Your task to perform on an android device: turn off picture-in-picture Image 0: 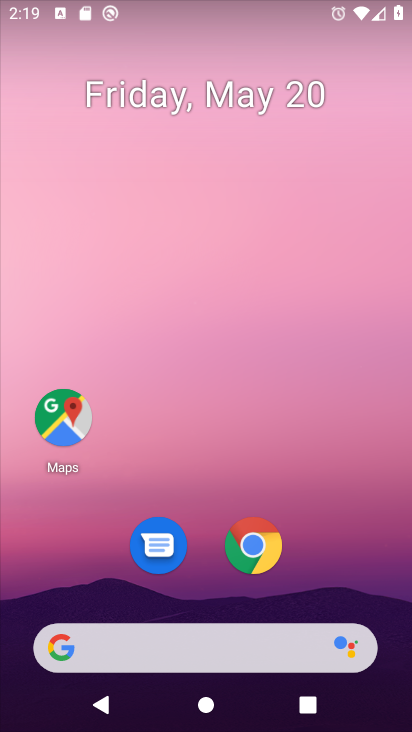
Step 0: drag from (240, 225) to (223, 13)
Your task to perform on an android device: turn off picture-in-picture Image 1: 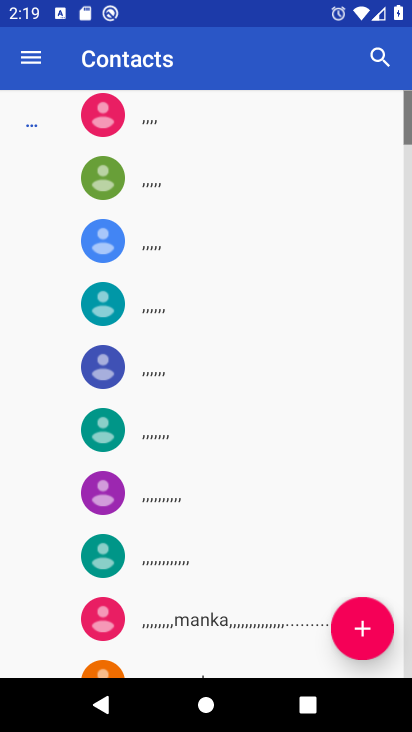
Step 1: press home button
Your task to perform on an android device: turn off picture-in-picture Image 2: 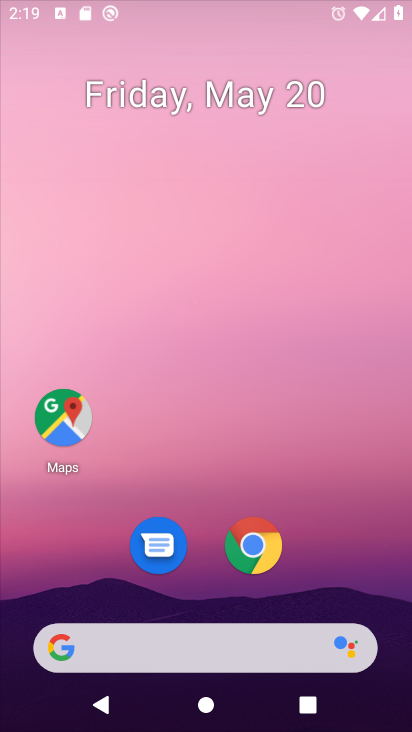
Step 2: drag from (230, 589) to (190, 44)
Your task to perform on an android device: turn off picture-in-picture Image 3: 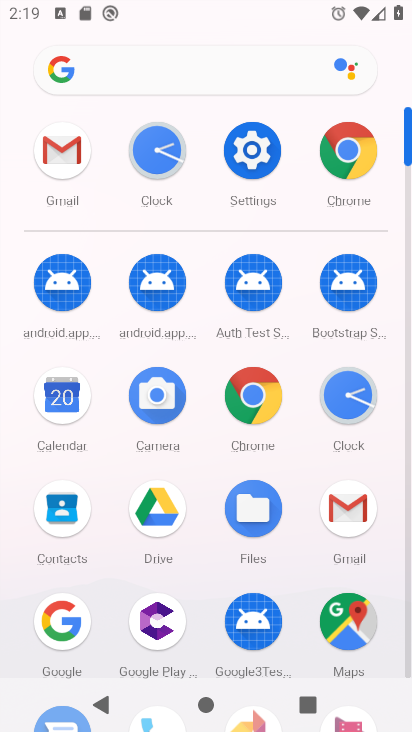
Step 3: click (252, 144)
Your task to perform on an android device: turn off picture-in-picture Image 4: 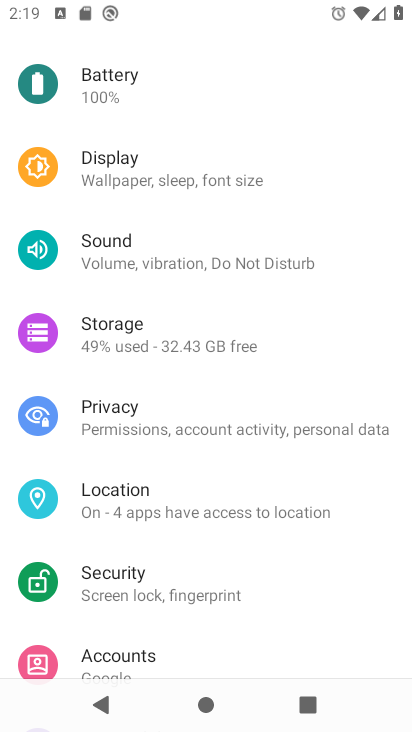
Step 4: drag from (156, 186) to (181, 655)
Your task to perform on an android device: turn off picture-in-picture Image 5: 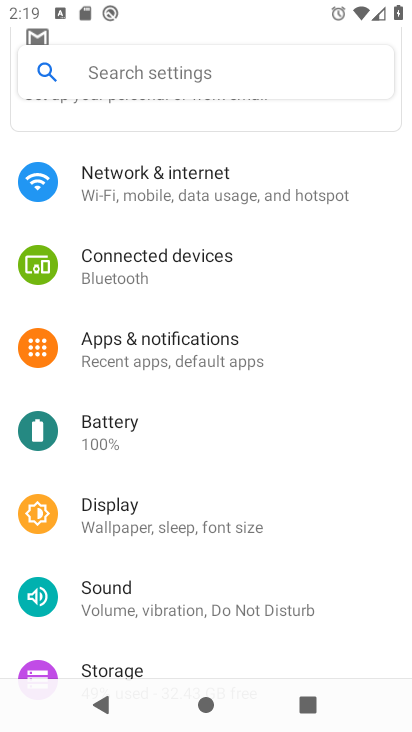
Step 5: click (187, 358)
Your task to perform on an android device: turn off picture-in-picture Image 6: 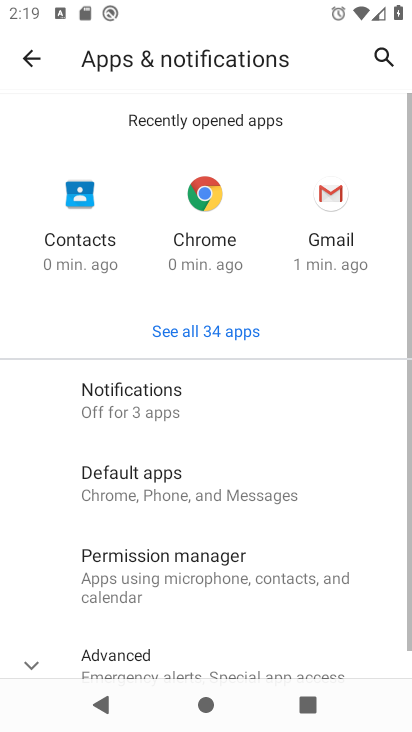
Step 6: drag from (281, 654) to (279, 285)
Your task to perform on an android device: turn off picture-in-picture Image 7: 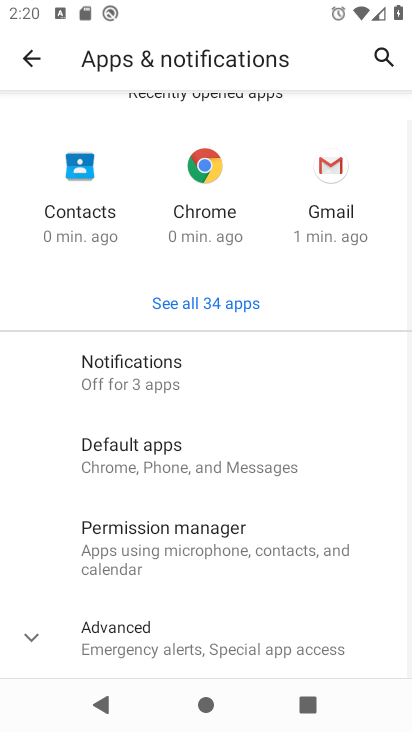
Step 7: click (215, 654)
Your task to perform on an android device: turn off picture-in-picture Image 8: 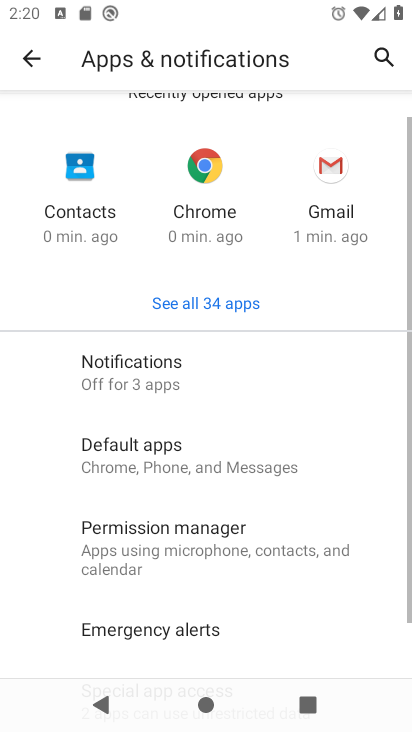
Step 8: drag from (215, 654) to (250, 254)
Your task to perform on an android device: turn off picture-in-picture Image 9: 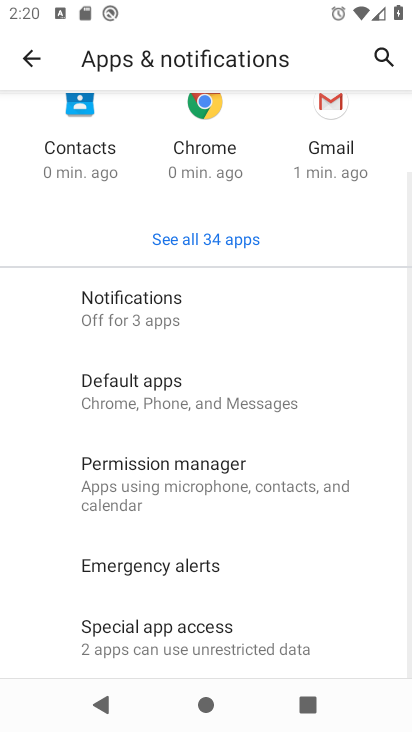
Step 9: click (254, 644)
Your task to perform on an android device: turn off picture-in-picture Image 10: 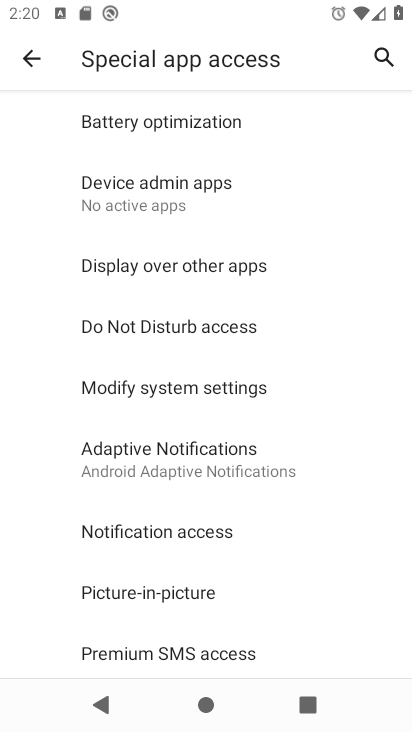
Step 10: click (199, 600)
Your task to perform on an android device: turn off picture-in-picture Image 11: 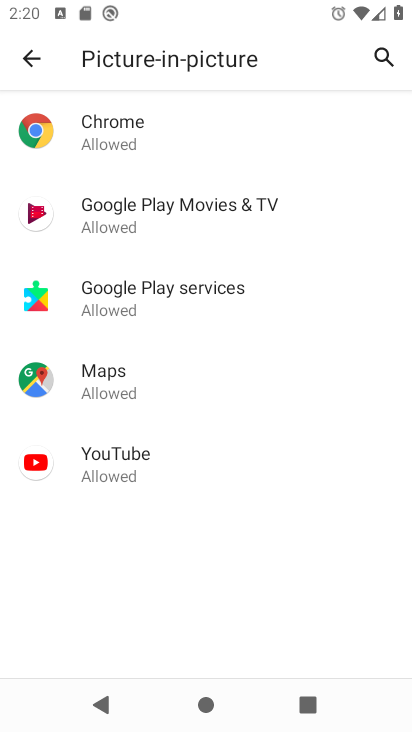
Step 11: click (168, 137)
Your task to perform on an android device: turn off picture-in-picture Image 12: 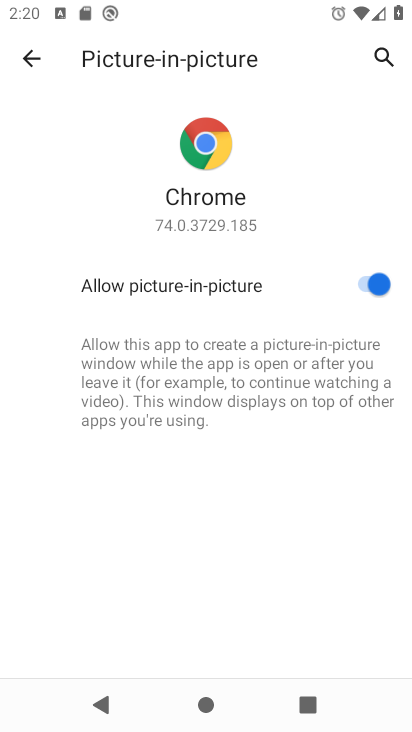
Step 12: click (370, 283)
Your task to perform on an android device: turn off picture-in-picture Image 13: 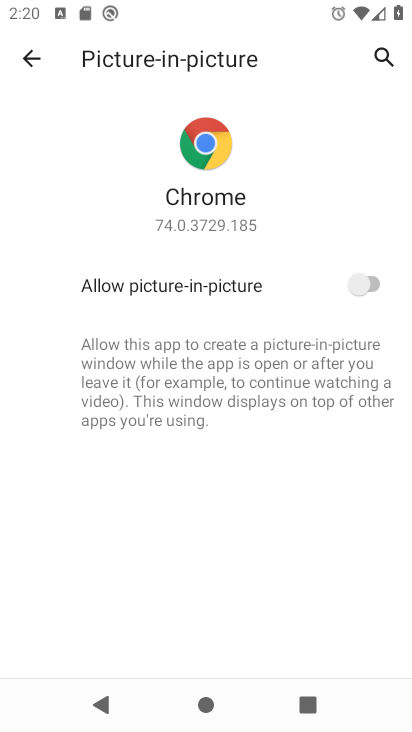
Step 13: press back button
Your task to perform on an android device: turn off picture-in-picture Image 14: 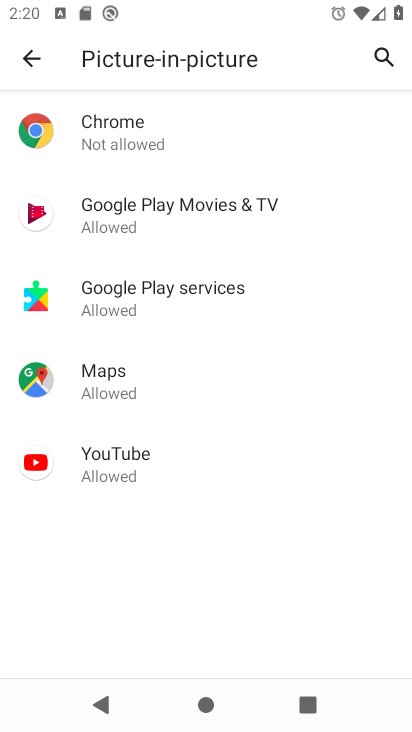
Step 14: click (193, 228)
Your task to perform on an android device: turn off picture-in-picture Image 15: 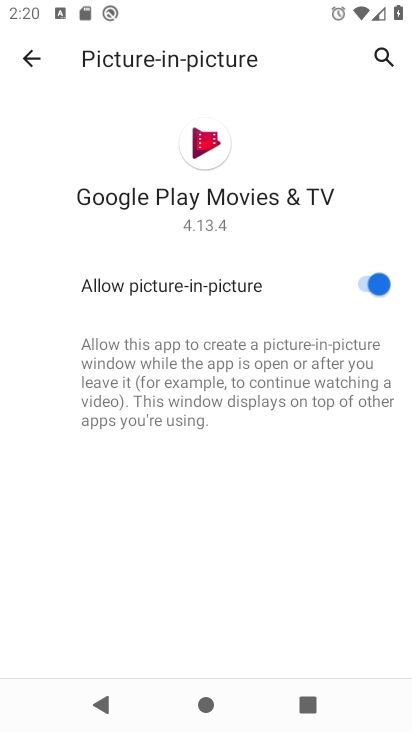
Step 15: click (356, 282)
Your task to perform on an android device: turn off picture-in-picture Image 16: 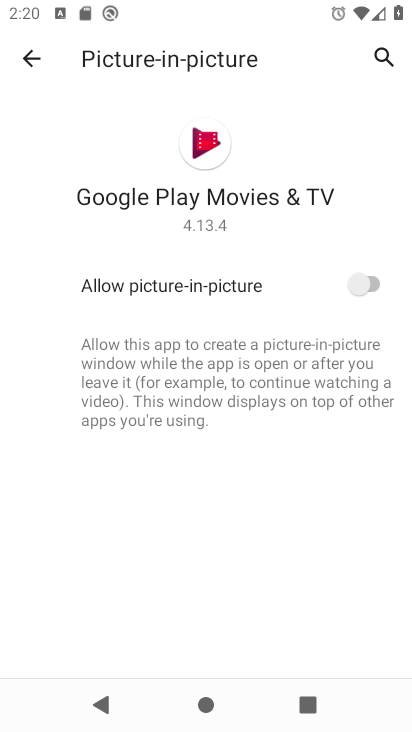
Step 16: press back button
Your task to perform on an android device: turn off picture-in-picture Image 17: 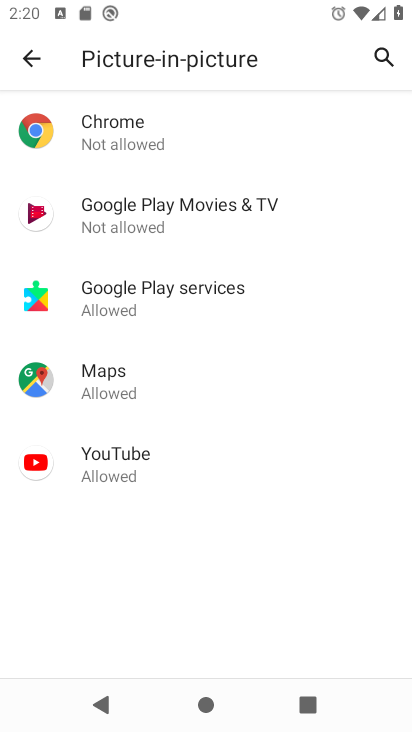
Step 17: click (310, 319)
Your task to perform on an android device: turn off picture-in-picture Image 18: 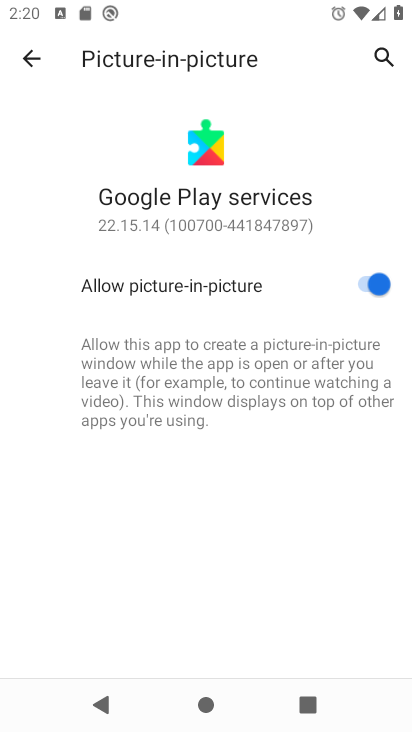
Step 18: click (366, 278)
Your task to perform on an android device: turn off picture-in-picture Image 19: 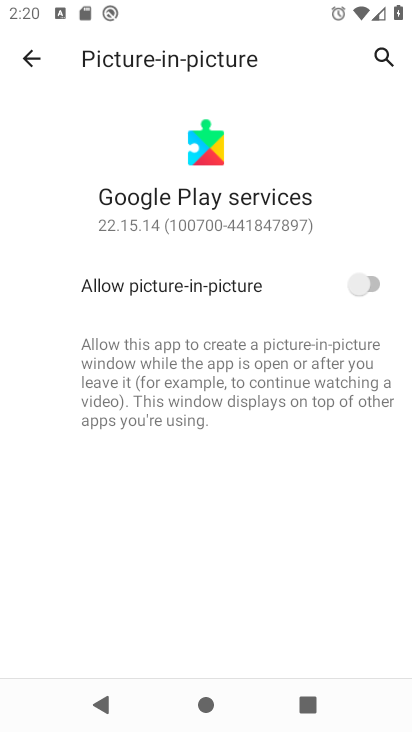
Step 19: press back button
Your task to perform on an android device: turn off picture-in-picture Image 20: 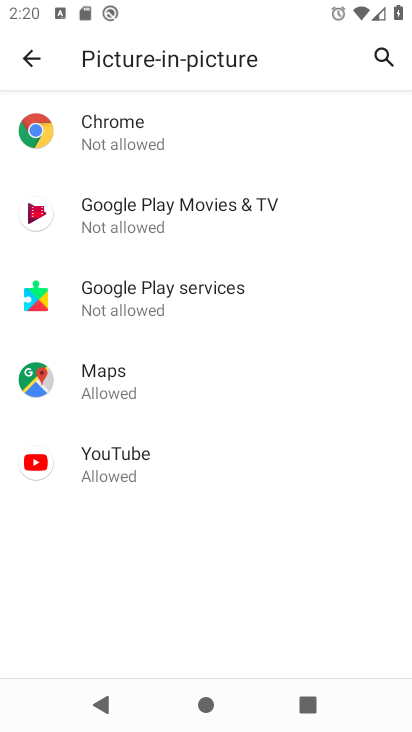
Step 20: click (284, 378)
Your task to perform on an android device: turn off picture-in-picture Image 21: 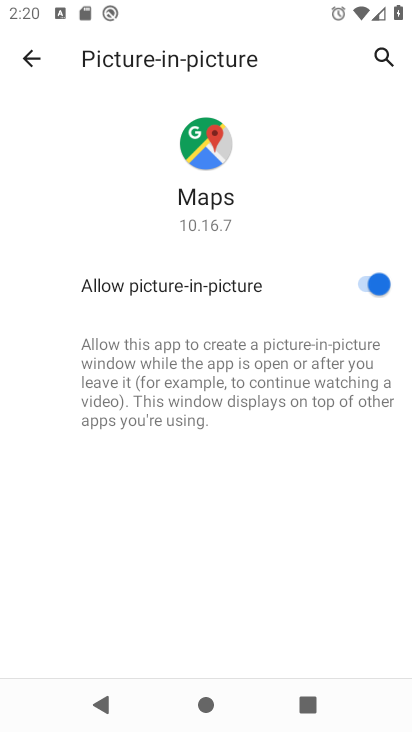
Step 21: click (373, 289)
Your task to perform on an android device: turn off picture-in-picture Image 22: 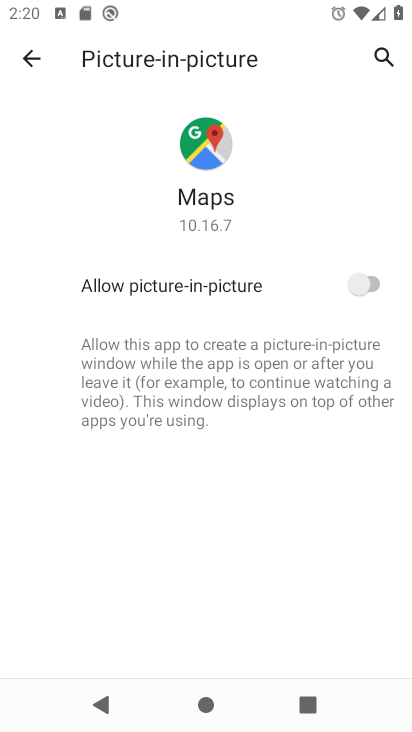
Step 22: press back button
Your task to perform on an android device: turn off picture-in-picture Image 23: 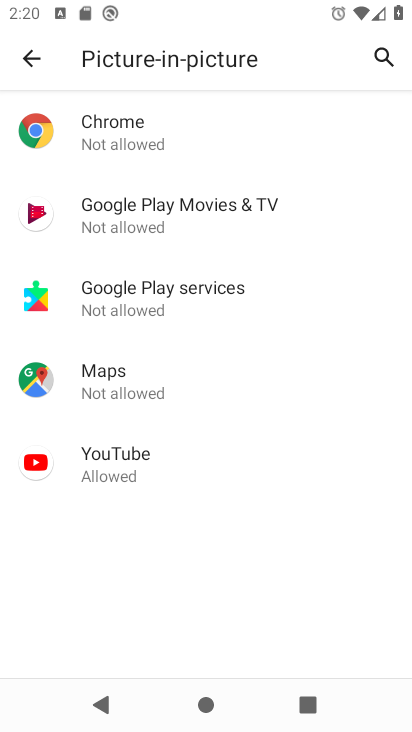
Step 23: click (310, 461)
Your task to perform on an android device: turn off picture-in-picture Image 24: 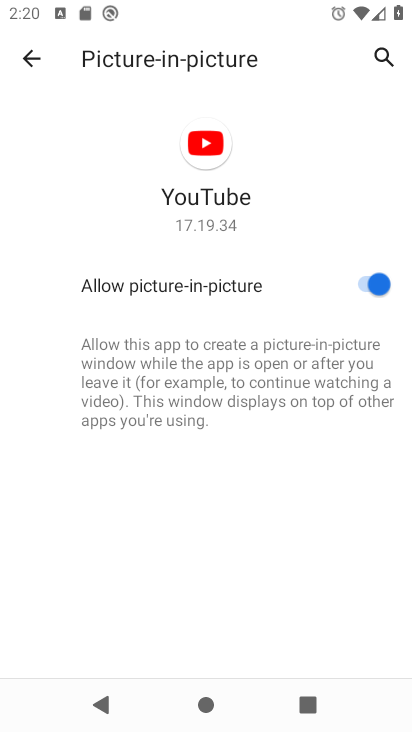
Step 24: click (367, 280)
Your task to perform on an android device: turn off picture-in-picture Image 25: 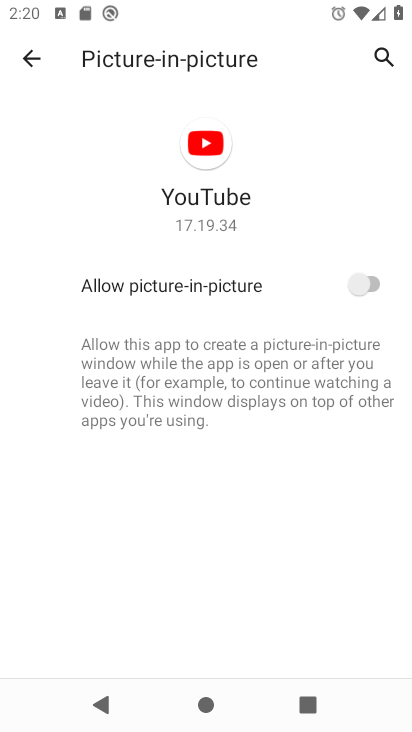
Step 25: task complete